Your task to perform on an android device: add a contact in the contacts app Image 0: 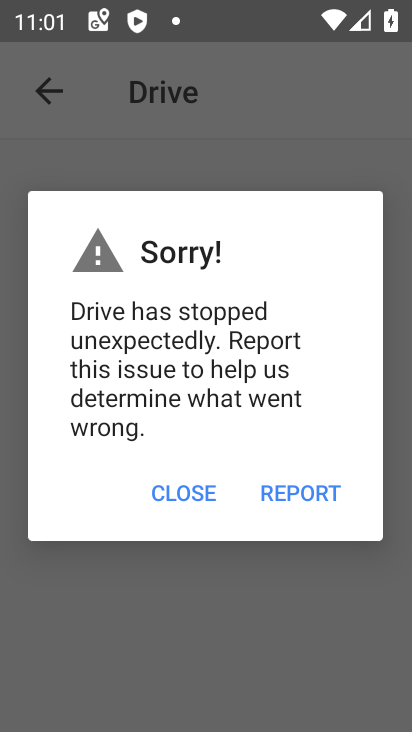
Step 0: press home button
Your task to perform on an android device: add a contact in the contacts app Image 1: 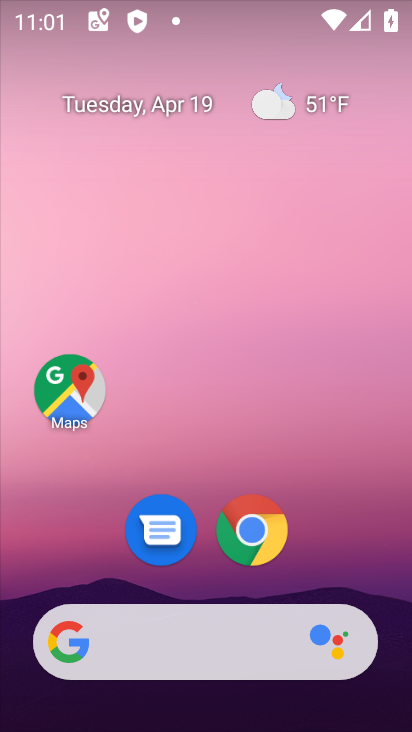
Step 1: drag from (314, 495) to (322, 112)
Your task to perform on an android device: add a contact in the contacts app Image 2: 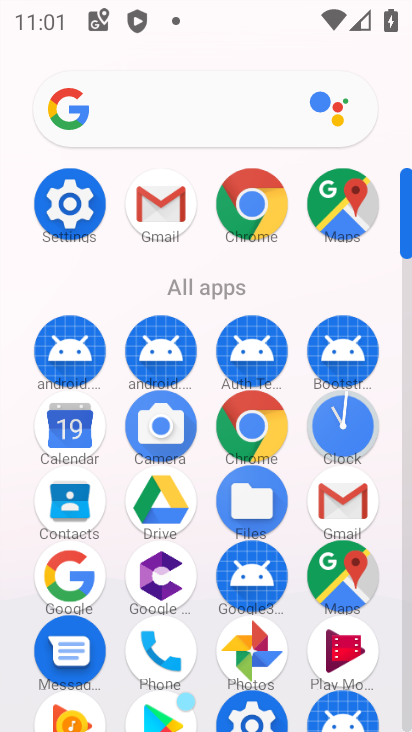
Step 2: click (69, 515)
Your task to perform on an android device: add a contact in the contacts app Image 3: 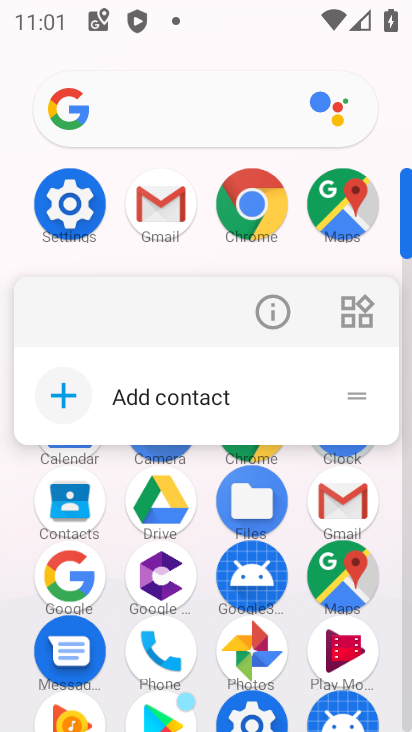
Step 3: click (69, 516)
Your task to perform on an android device: add a contact in the contacts app Image 4: 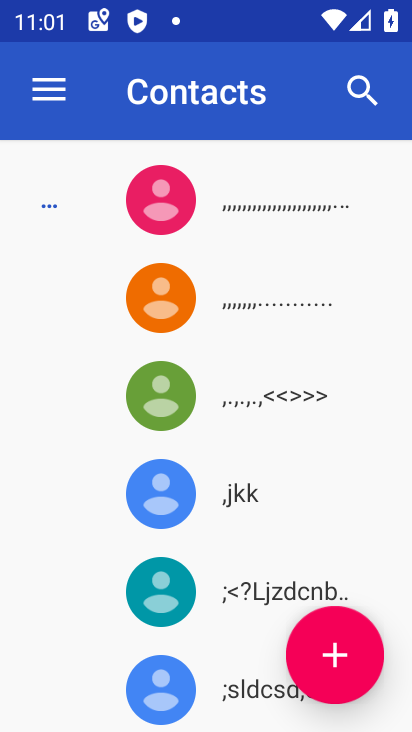
Step 4: click (339, 652)
Your task to perform on an android device: add a contact in the contacts app Image 5: 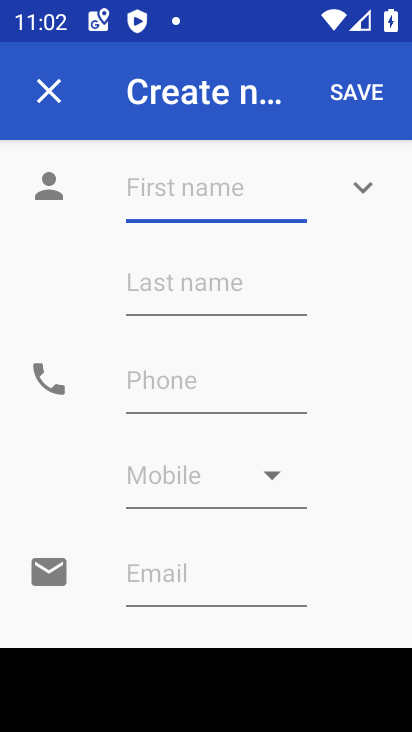
Step 5: type "Jamvantji Maharaj"
Your task to perform on an android device: add a contact in the contacts app Image 6: 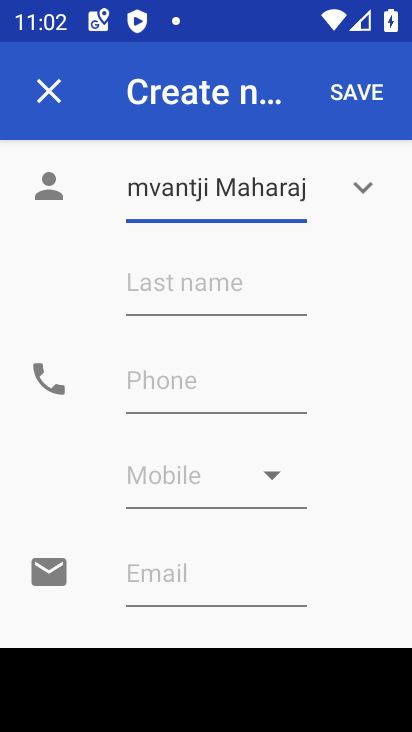
Step 6: click (254, 392)
Your task to perform on an android device: add a contact in the contacts app Image 7: 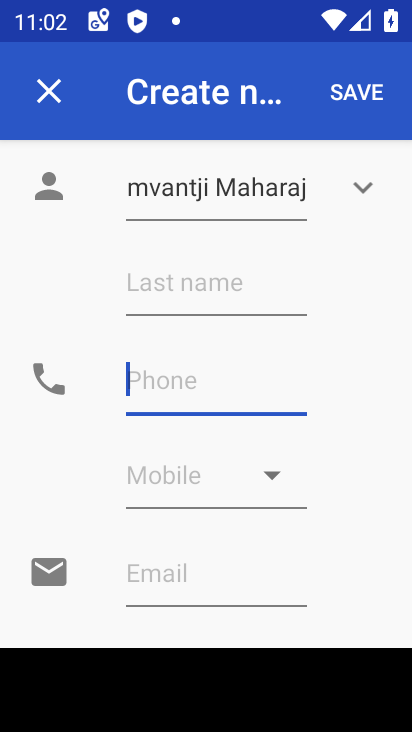
Step 7: type "919879879876"
Your task to perform on an android device: add a contact in the contacts app Image 8: 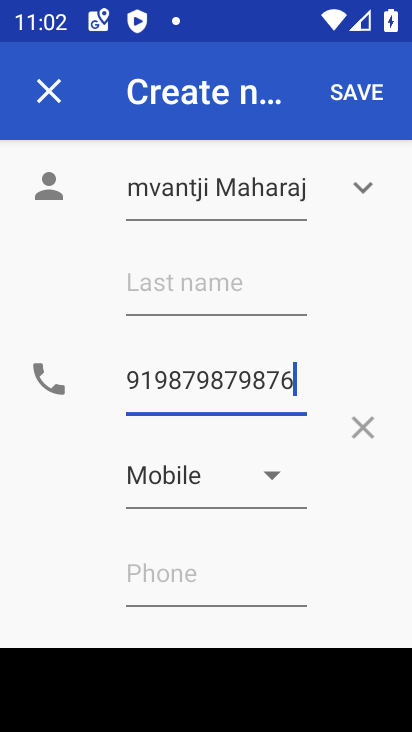
Step 8: click (366, 91)
Your task to perform on an android device: add a contact in the contacts app Image 9: 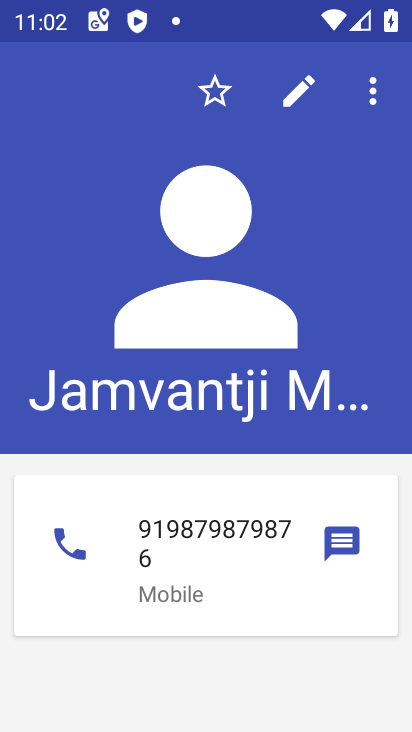
Step 9: task complete